Your task to perform on an android device: What's the weather? Image 0: 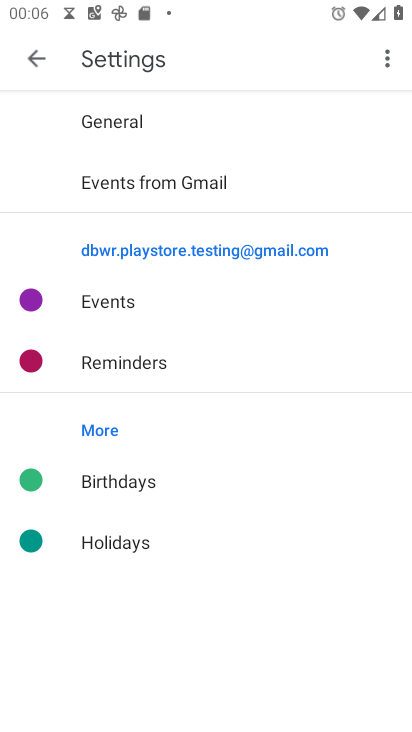
Step 0: press home button
Your task to perform on an android device: What's the weather? Image 1: 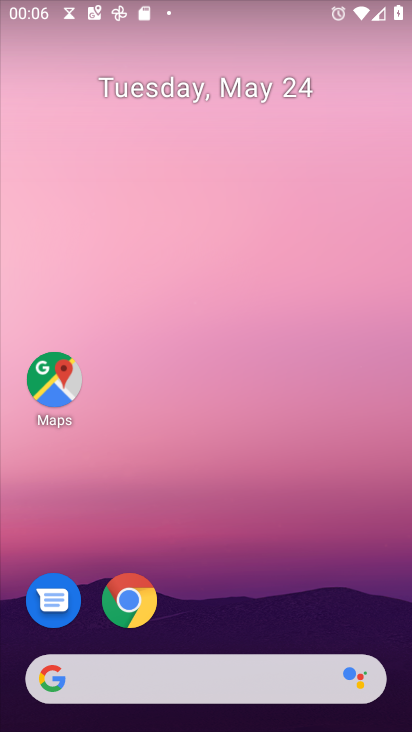
Step 1: drag from (225, 682) to (224, 134)
Your task to perform on an android device: What's the weather? Image 2: 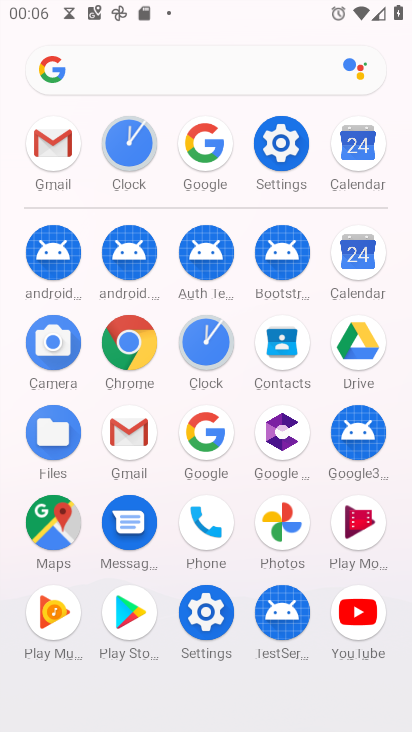
Step 2: click (200, 435)
Your task to perform on an android device: What's the weather? Image 3: 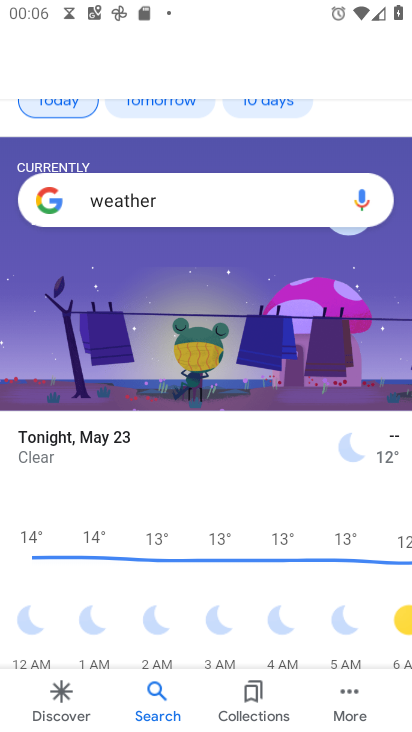
Step 3: click (48, 101)
Your task to perform on an android device: What's the weather? Image 4: 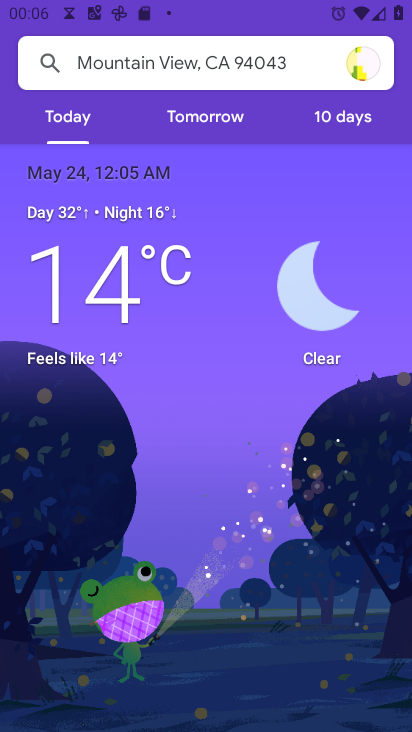
Step 4: task complete